Your task to perform on an android device: Open the phone app and click the voicemail tab. Image 0: 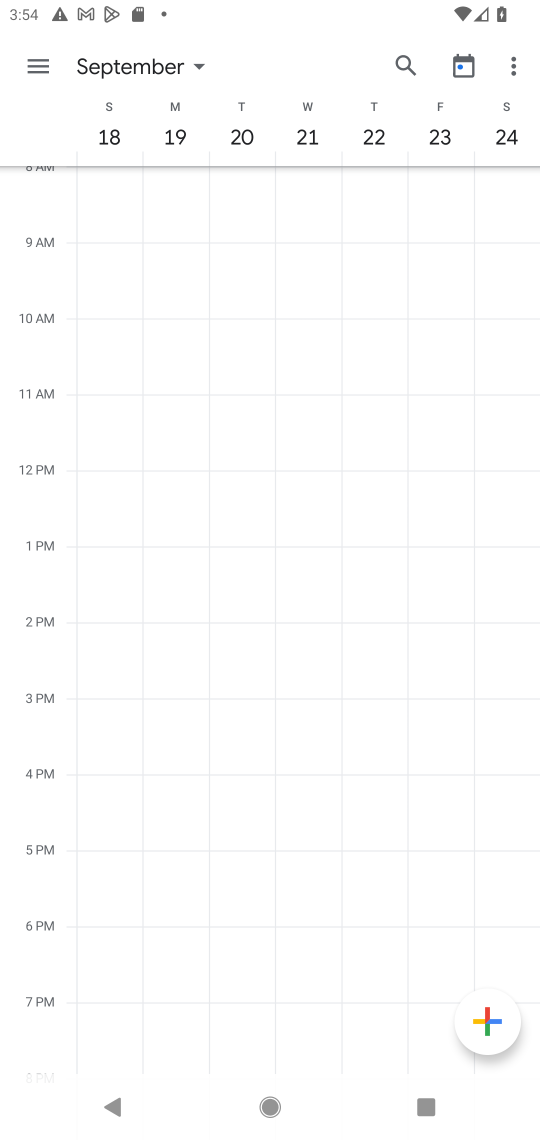
Step 0: press home button
Your task to perform on an android device: Open the phone app and click the voicemail tab. Image 1: 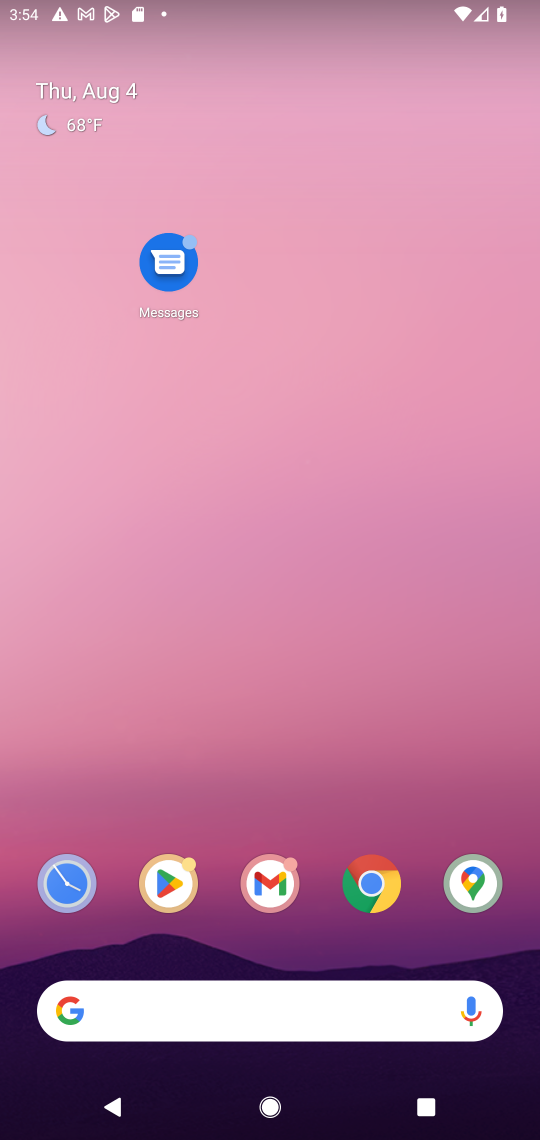
Step 1: drag from (311, 961) to (349, 133)
Your task to perform on an android device: Open the phone app and click the voicemail tab. Image 2: 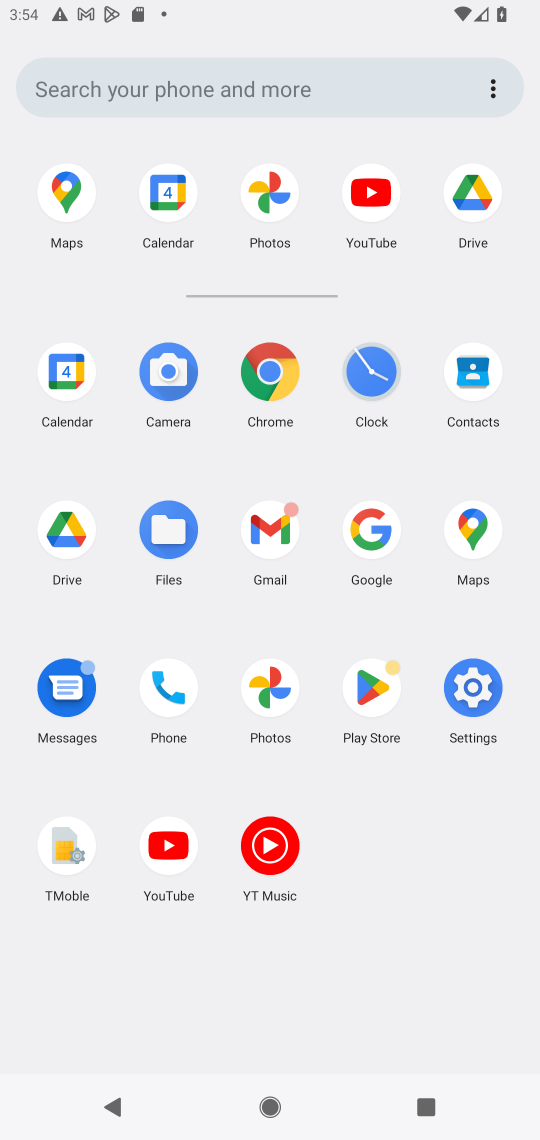
Step 2: click (168, 690)
Your task to perform on an android device: Open the phone app and click the voicemail tab. Image 3: 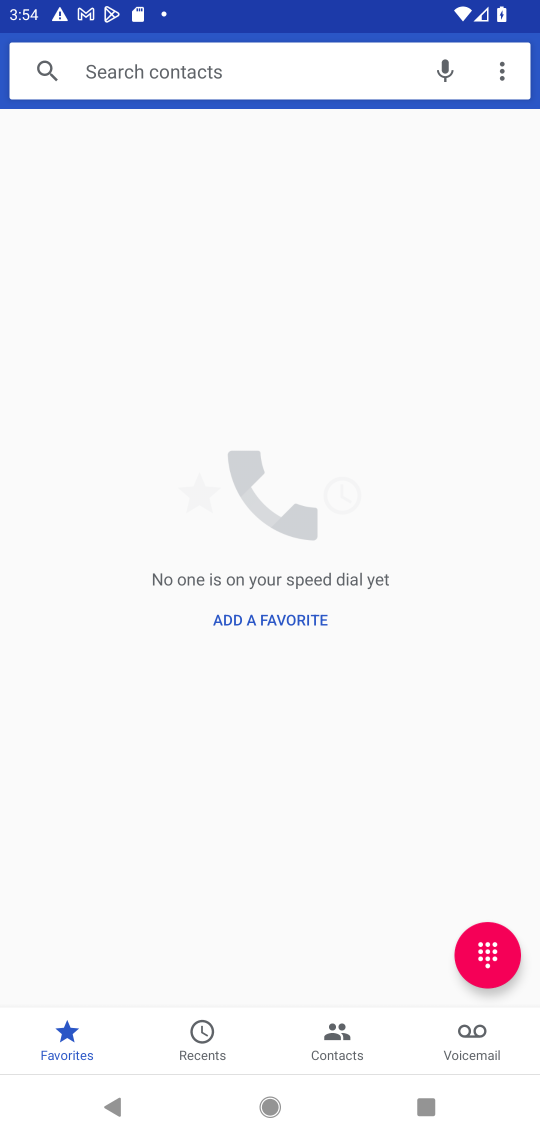
Step 3: click (466, 1043)
Your task to perform on an android device: Open the phone app and click the voicemail tab. Image 4: 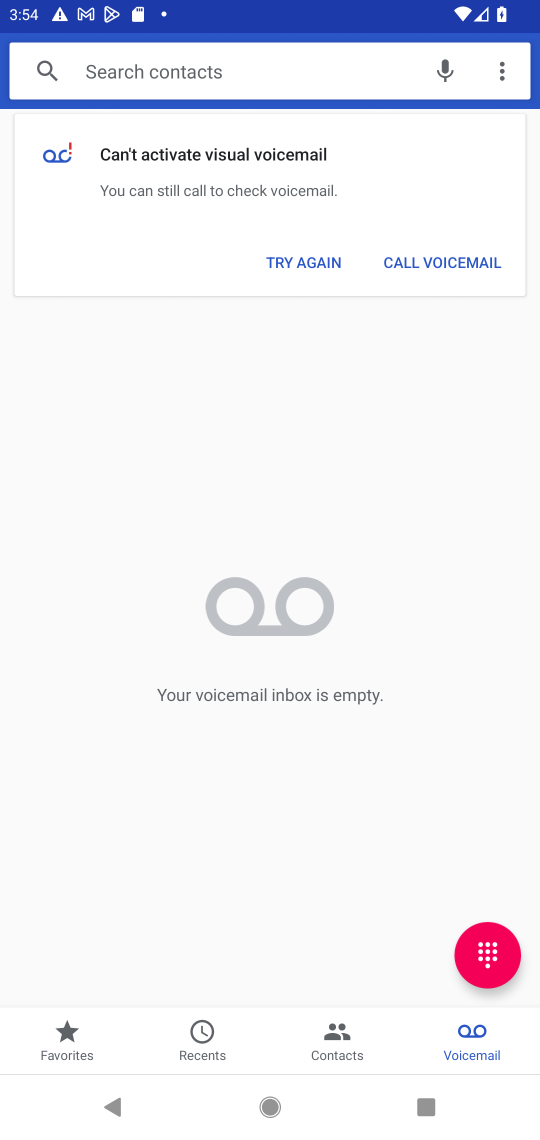
Step 4: task complete